Your task to perform on an android device: Show me productivity apps on the Play Store Image 0: 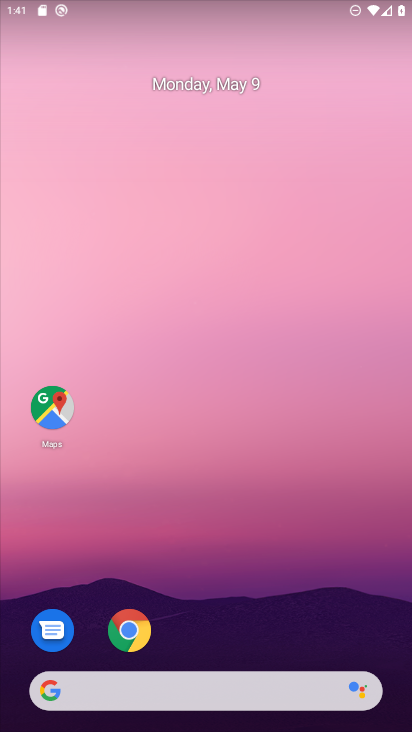
Step 0: drag from (259, 722) to (278, 295)
Your task to perform on an android device: Show me productivity apps on the Play Store Image 1: 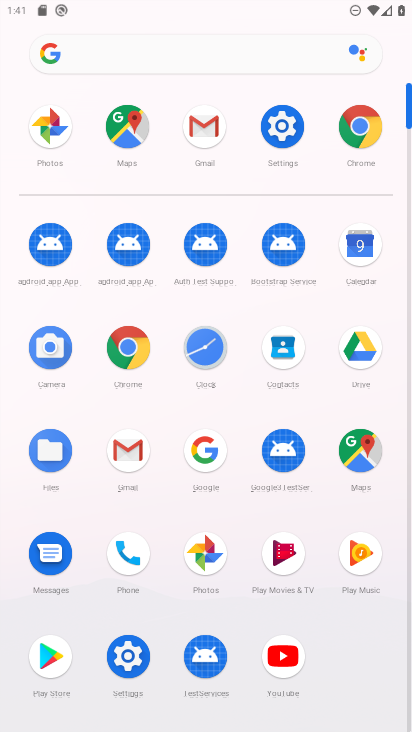
Step 1: click (56, 670)
Your task to perform on an android device: Show me productivity apps on the Play Store Image 2: 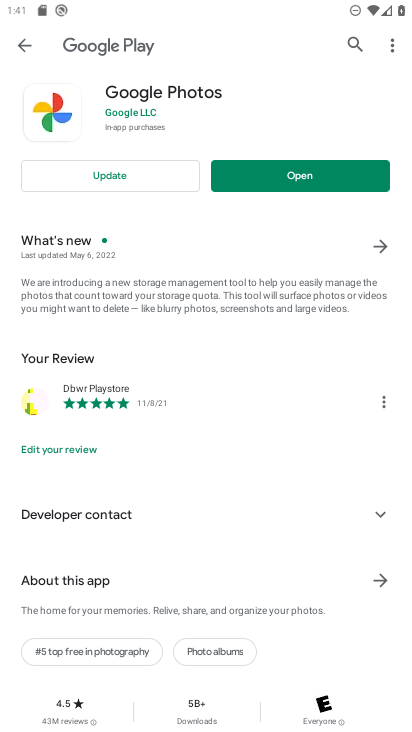
Step 2: click (352, 35)
Your task to perform on an android device: Show me productivity apps on the Play Store Image 3: 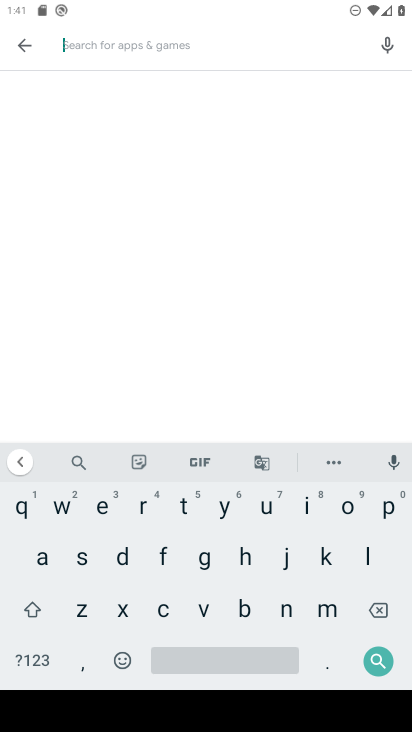
Step 3: click (388, 511)
Your task to perform on an android device: Show me productivity apps on the Play Store Image 4: 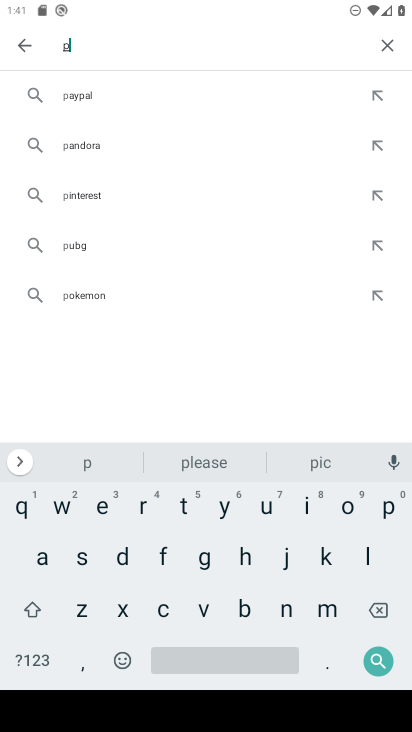
Step 4: click (137, 510)
Your task to perform on an android device: Show me productivity apps on the Play Store Image 5: 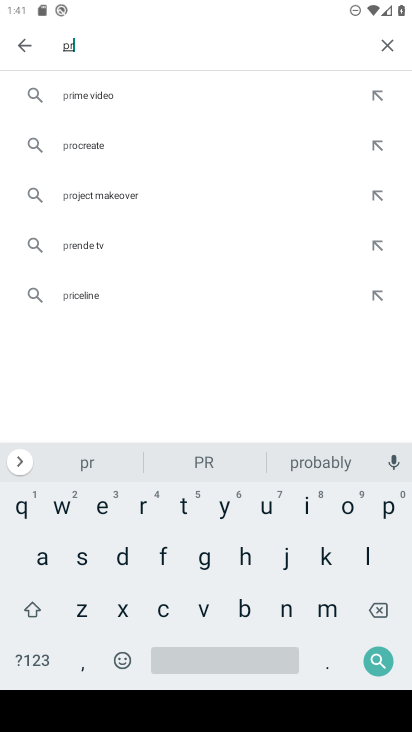
Step 5: click (345, 507)
Your task to perform on an android device: Show me productivity apps on the Play Store Image 6: 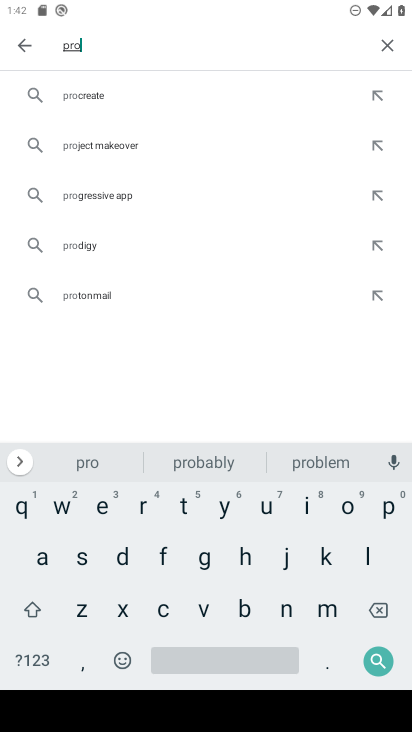
Step 6: click (113, 556)
Your task to perform on an android device: Show me productivity apps on the Play Store Image 7: 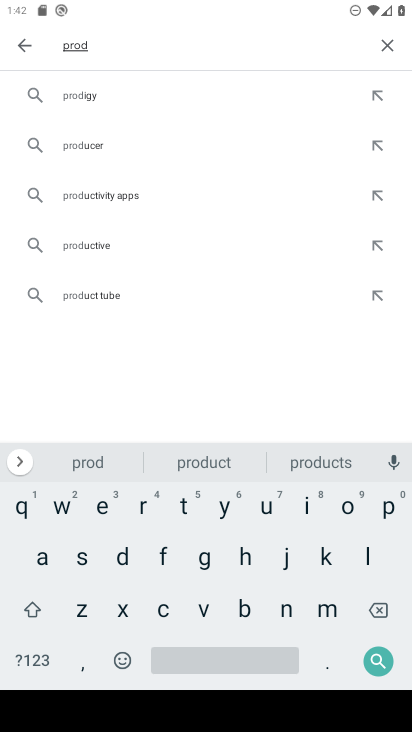
Step 7: click (267, 511)
Your task to perform on an android device: Show me productivity apps on the Play Store Image 8: 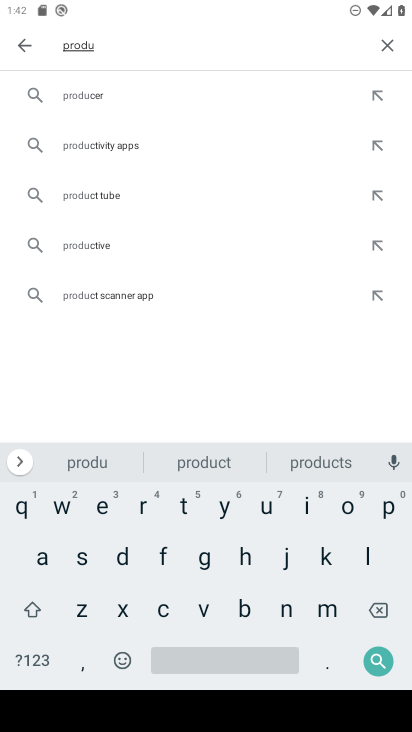
Step 8: click (164, 608)
Your task to perform on an android device: Show me productivity apps on the Play Store Image 9: 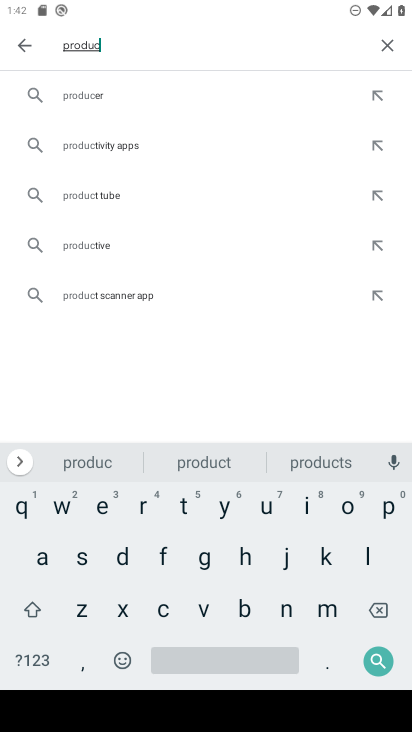
Step 9: click (186, 503)
Your task to perform on an android device: Show me productivity apps on the Play Store Image 10: 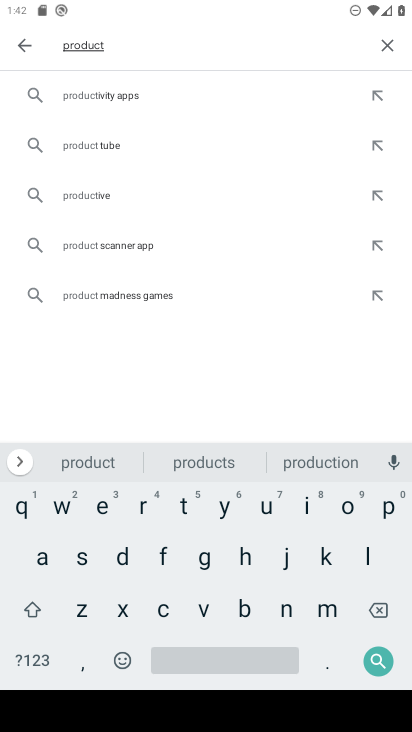
Step 10: click (309, 501)
Your task to perform on an android device: Show me productivity apps on the Play Store Image 11: 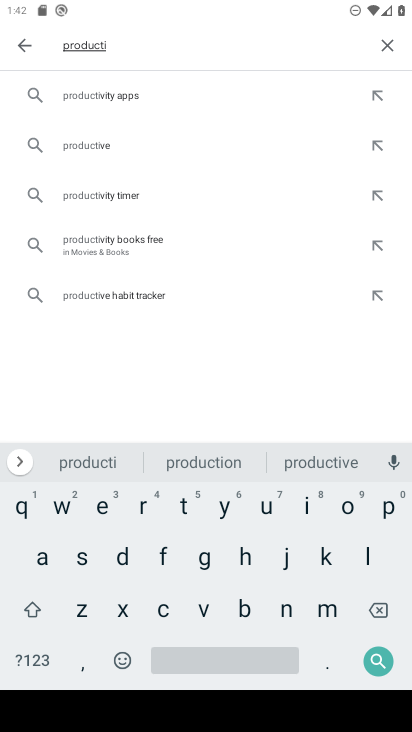
Step 11: click (205, 608)
Your task to perform on an android device: Show me productivity apps on the Play Store Image 12: 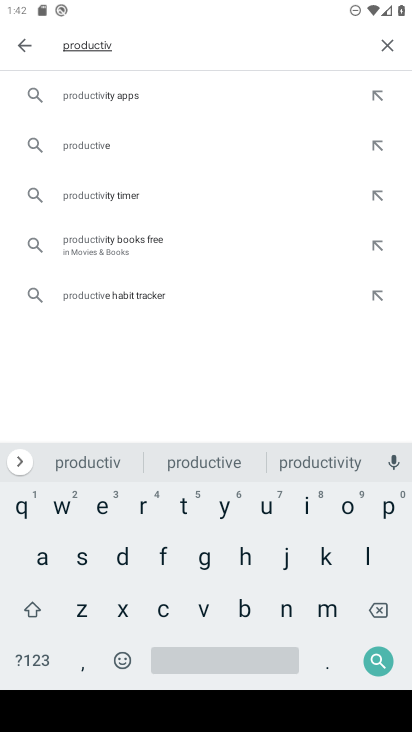
Step 12: click (318, 468)
Your task to perform on an android device: Show me productivity apps on the Play Store Image 13: 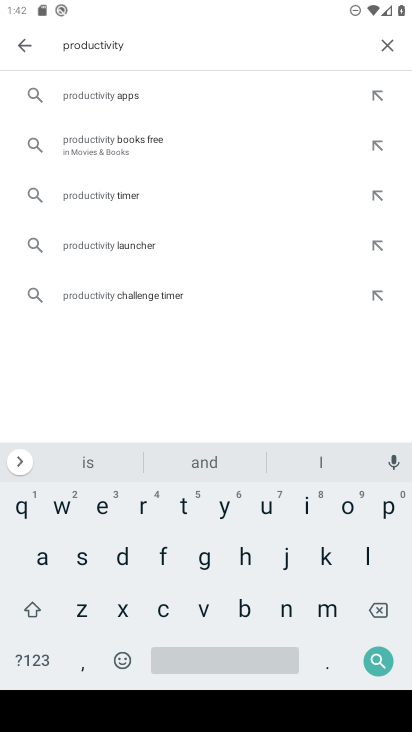
Step 13: click (46, 556)
Your task to perform on an android device: Show me productivity apps on the Play Store Image 14: 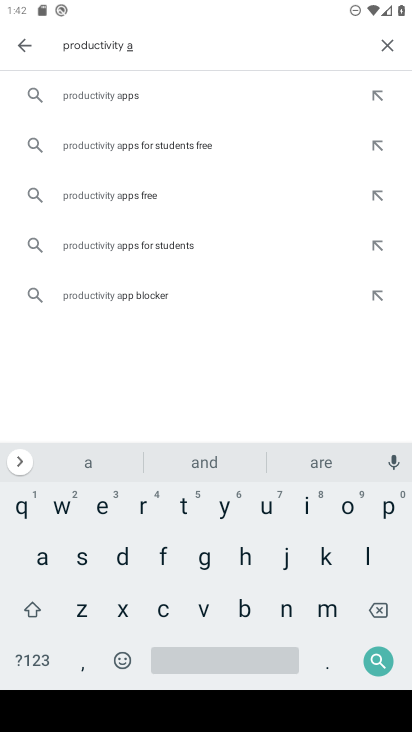
Step 14: click (383, 511)
Your task to perform on an android device: Show me productivity apps on the Play Store Image 15: 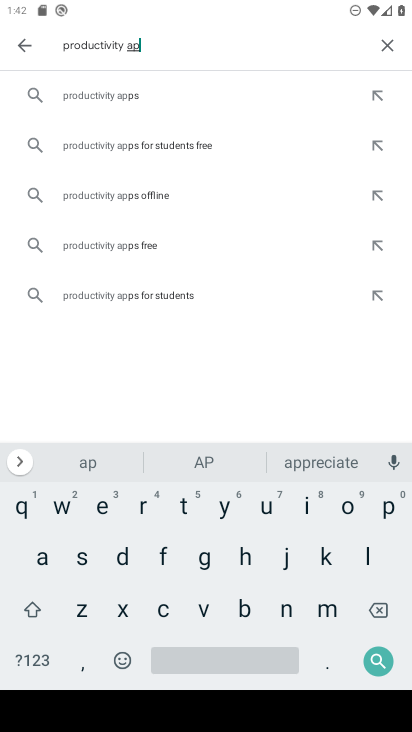
Step 15: click (136, 91)
Your task to perform on an android device: Show me productivity apps on the Play Store Image 16: 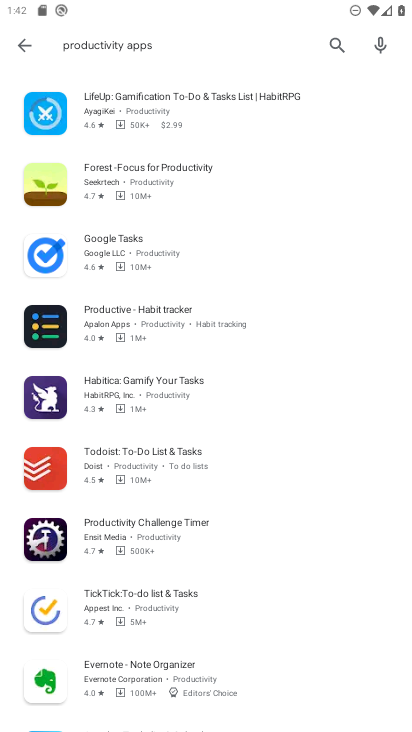
Step 16: task complete